Your task to perform on an android device: turn off translation in the chrome app Image 0: 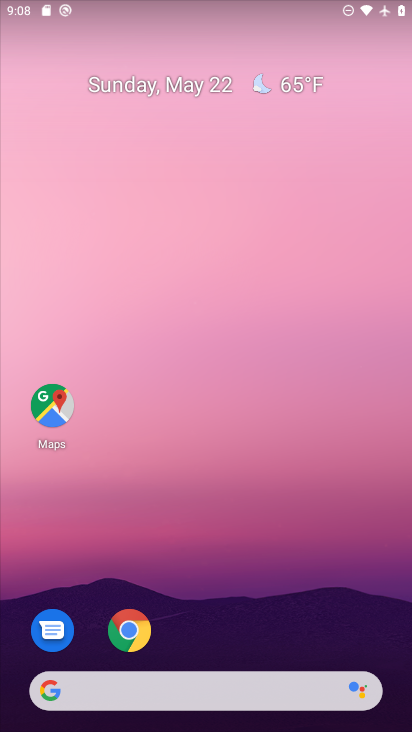
Step 0: click (131, 633)
Your task to perform on an android device: turn off translation in the chrome app Image 1: 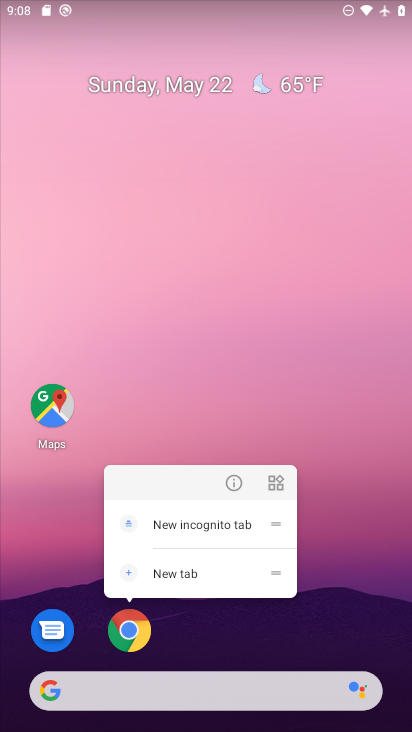
Step 1: click (132, 633)
Your task to perform on an android device: turn off translation in the chrome app Image 2: 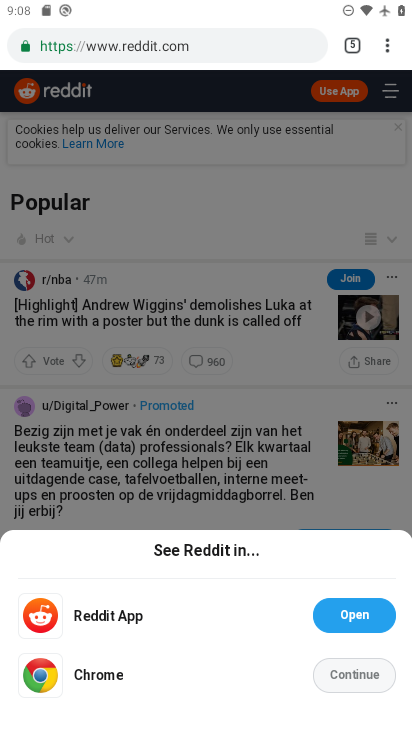
Step 2: drag from (389, 51) to (228, 554)
Your task to perform on an android device: turn off translation in the chrome app Image 3: 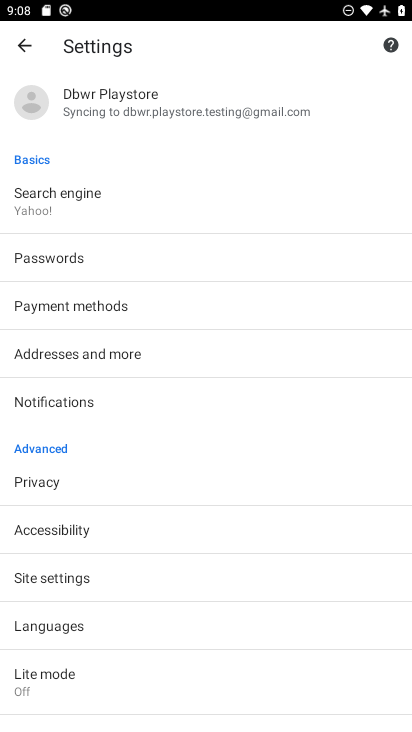
Step 3: click (100, 622)
Your task to perform on an android device: turn off translation in the chrome app Image 4: 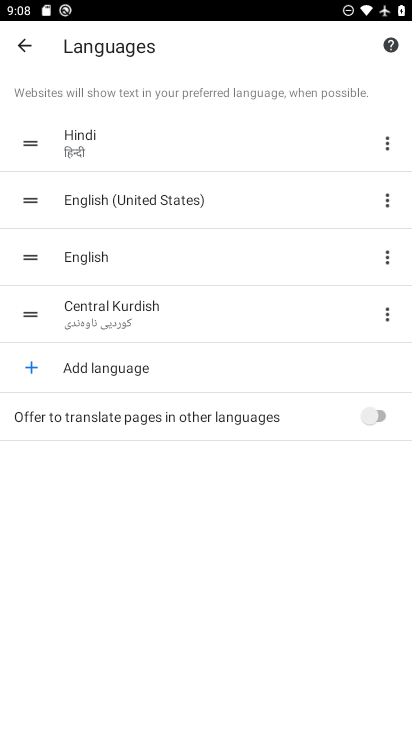
Step 4: task complete